Your task to perform on an android device: Do I have any events today? Image 0: 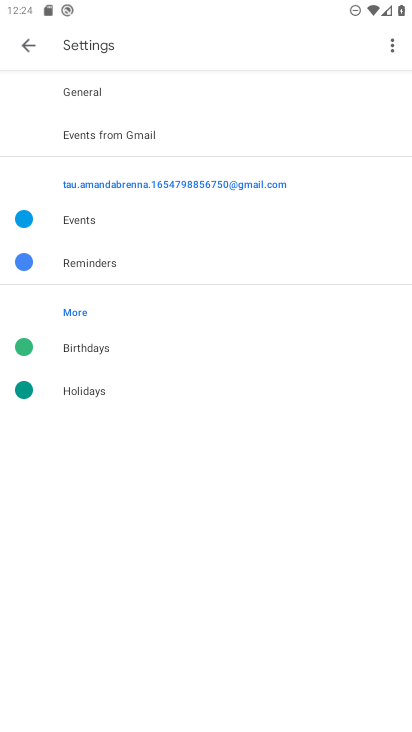
Step 0: press home button
Your task to perform on an android device: Do I have any events today? Image 1: 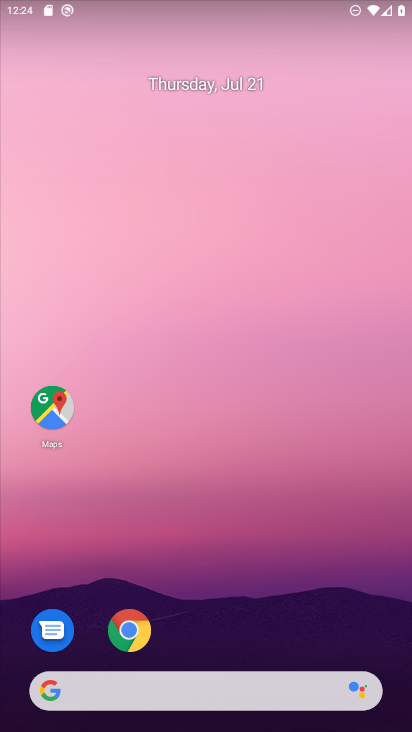
Step 1: drag from (396, 662) to (347, 152)
Your task to perform on an android device: Do I have any events today? Image 2: 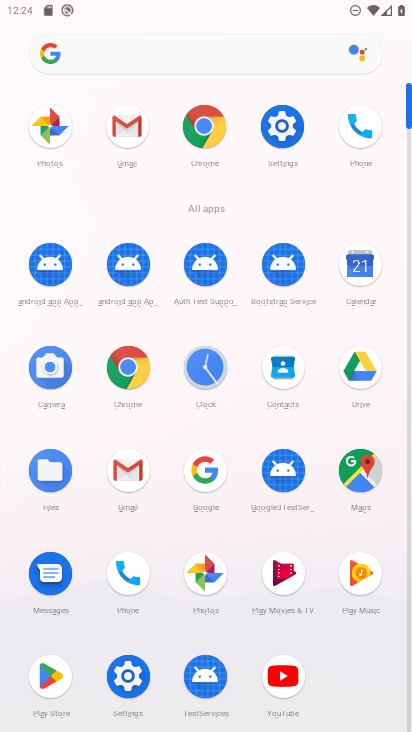
Step 2: click (350, 250)
Your task to perform on an android device: Do I have any events today? Image 3: 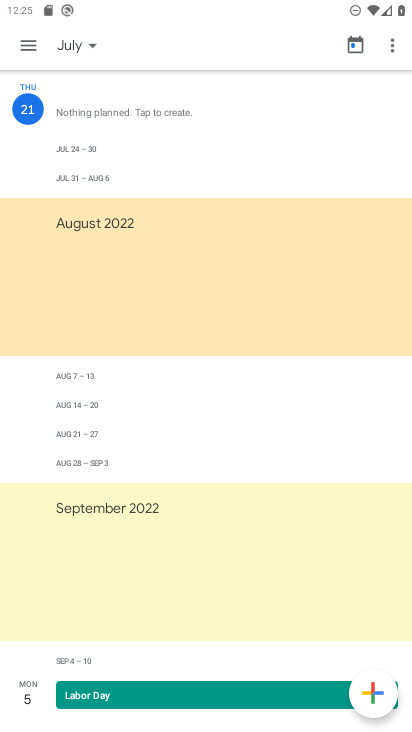
Step 3: click (90, 48)
Your task to perform on an android device: Do I have any events today? Image 4: 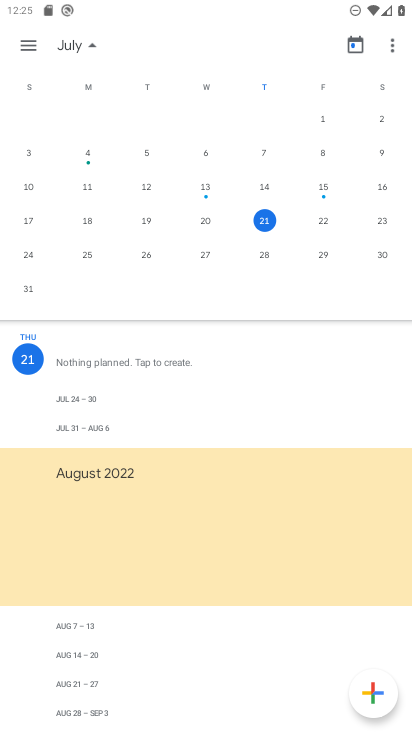
Step 4: click (263, 225)
Your task to perform on an android device: Do I have any events today? Image 5: 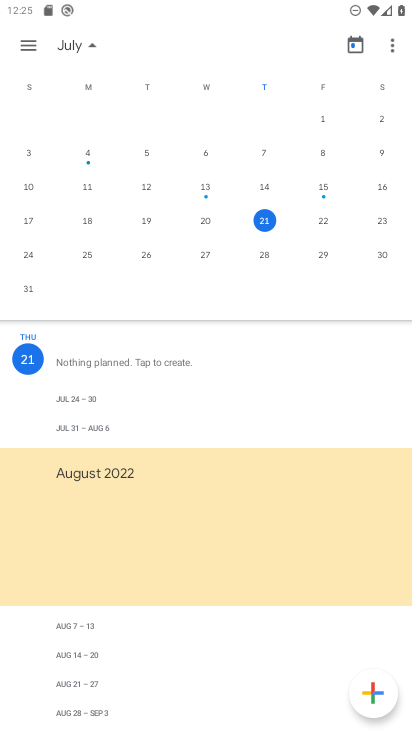
Step 5: task complete